Your task to perform on an android device: set default search engine in the chrome app Image 0: 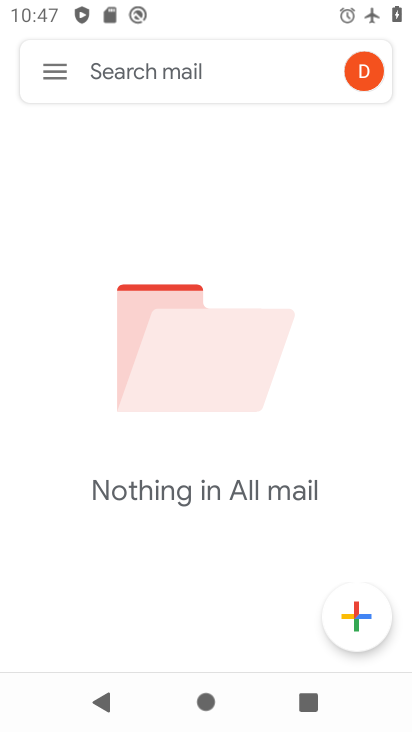
Step 0: press home button
Your task to perform on an android device: set default search engine in the chrome app Image 1: 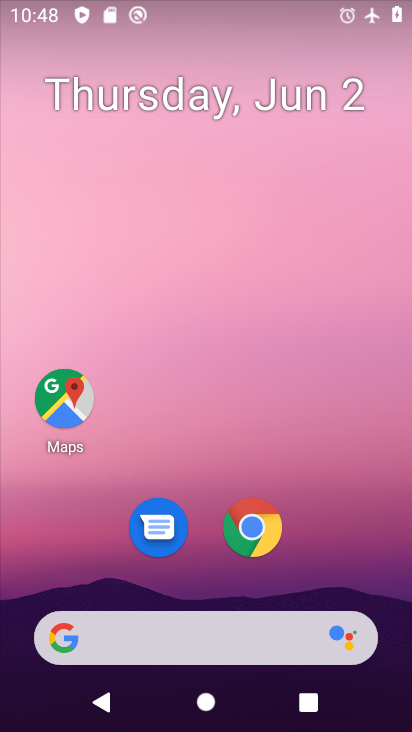
Step 1: click (255, 548)
Your task to perform on an android device: set default search engine in the chrome app Image 2: 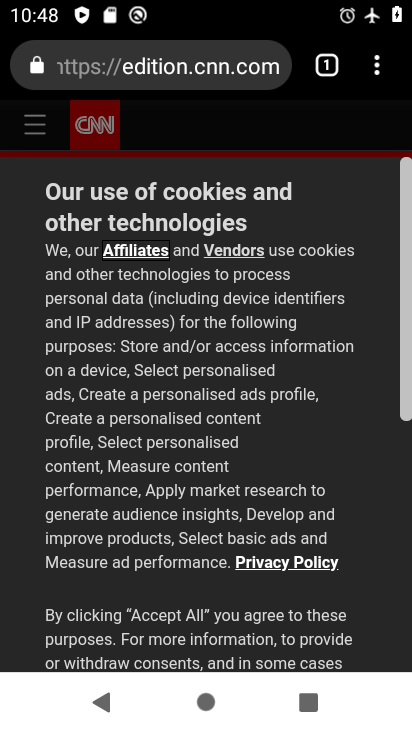
Step 2: drag from (378, 69) to (166, 575)
Your task to perform on an android device: set default search engine in the chrome app Image 3: 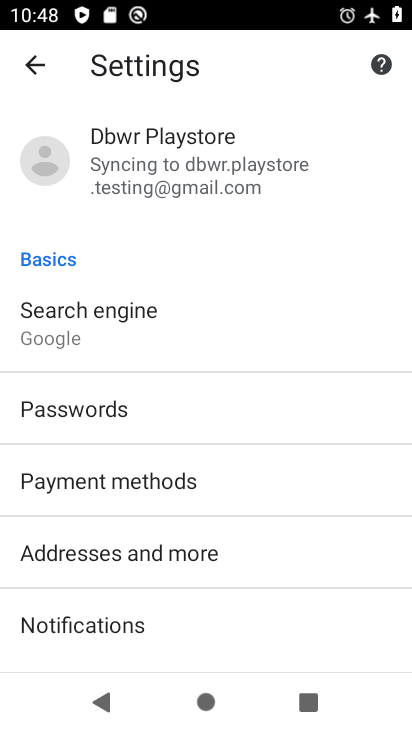
Step 3: click (133, 322)
Your task to perform on an android device: set default search engine in the chrome app Image 4: 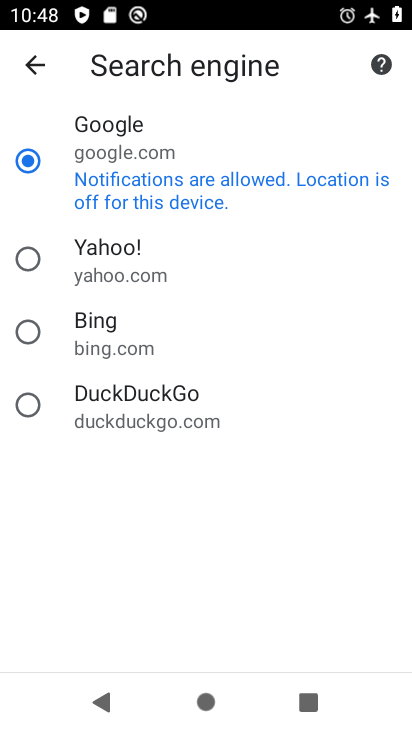
Step 4: click (99, 255)
Your task to perform on an android device: set default search engine in the chrome app Image 5: 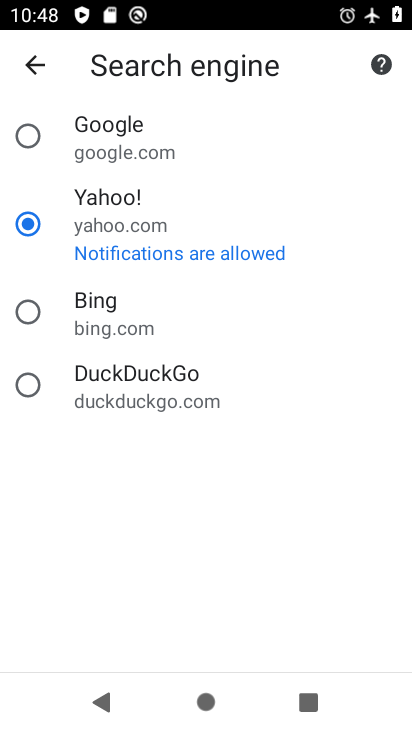
Step 5: task complete